Your task to perform on an android device: turn off notifications settings in the gmail app Image 0: 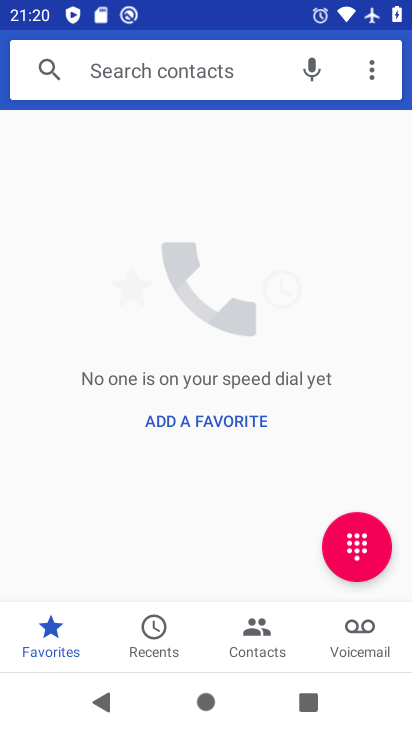
Step 0: press home button
Your task to perform on an android device: turn off notifications settings in the gmail app Image 1: 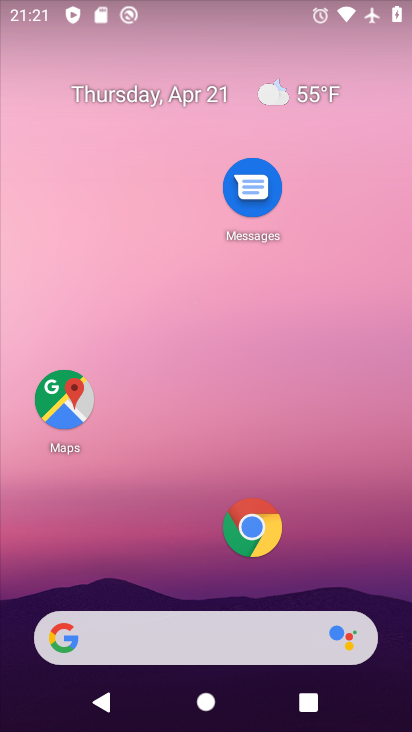
Step 1: drag from (158, 629) to (260, 183)
Your task to perform on an android device: turn off notifications settings in the gmail app Image 2: 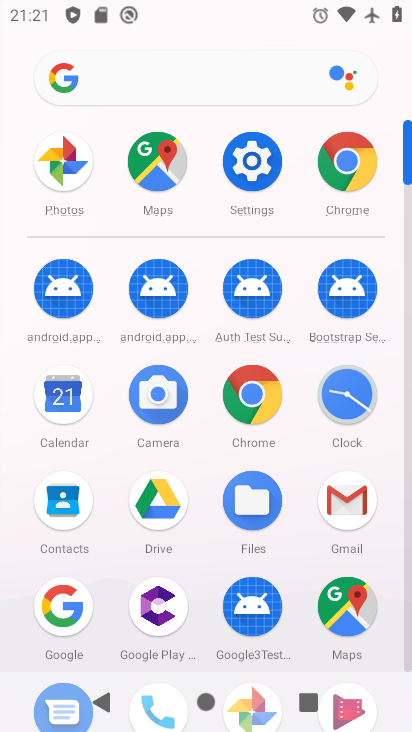
Step 2: click (345, 499)
Your task to perform on an android device: turn off notifications settings in the gmail app Image 3: 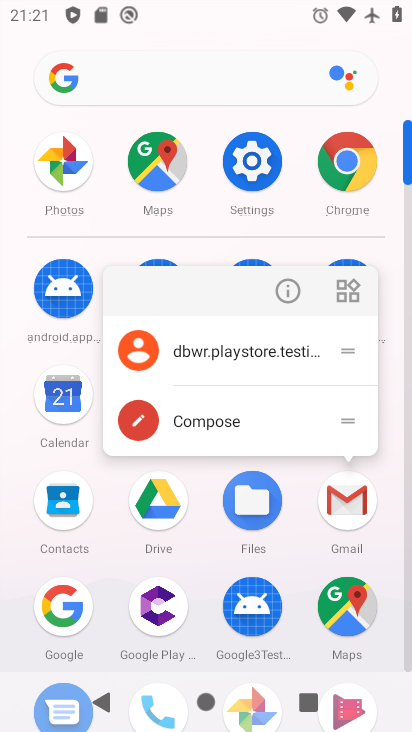
Step 3: click (341, 505)
Your task to perform on an android device: turn off notifications settings in the gmail app Image 4: 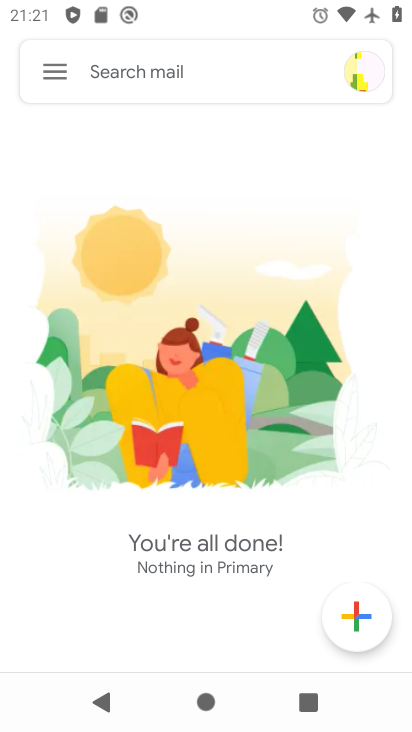
Step 4: click (59, 74)
Your task to perform on an android device: turn off notifications settings in the gmail app Image 5: 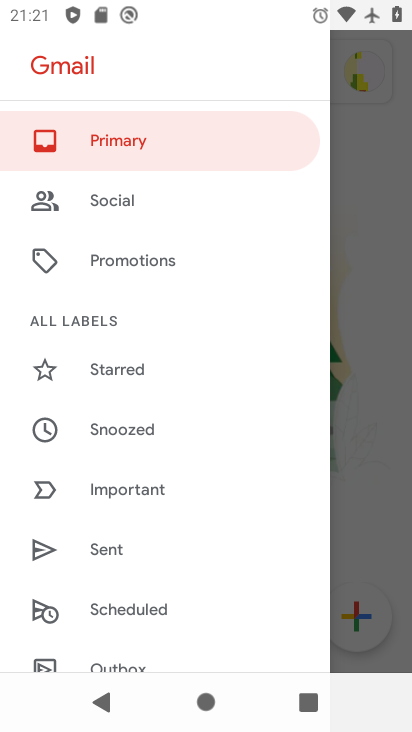
Step 5: drag from (163, 566) to (272, 30)
Your task to perform on an android device: turn off notifications settings in the gmail app Image 6: 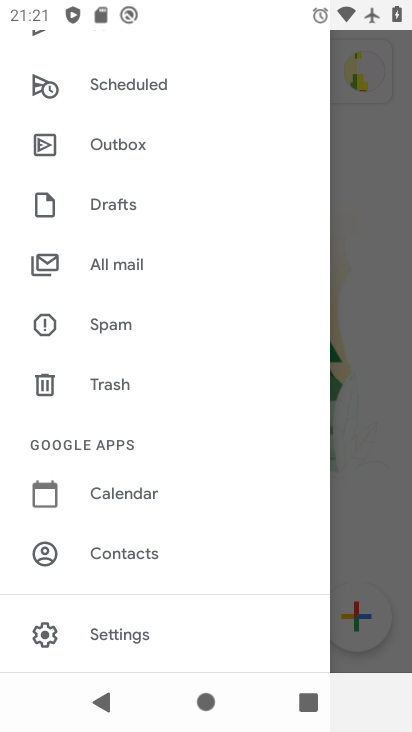
Step 6: click (124, 637)
Your task to perform on an android device: turn off notifications settings in the gmail app Image 7: 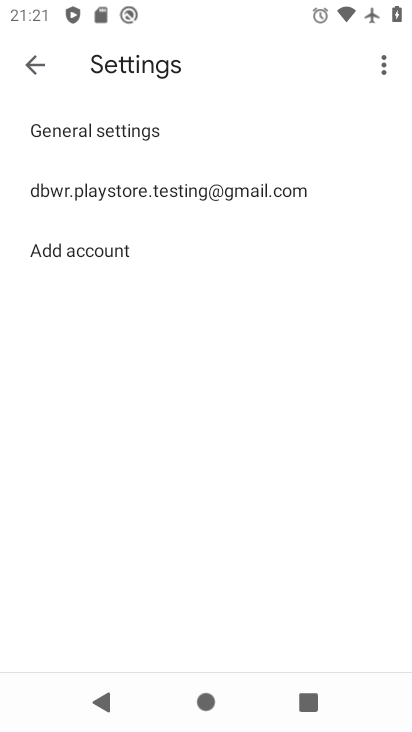
Step 7: click (188, 186)
Your task to perform on an android device: turn off notifications settings in the gmail app Image 8: 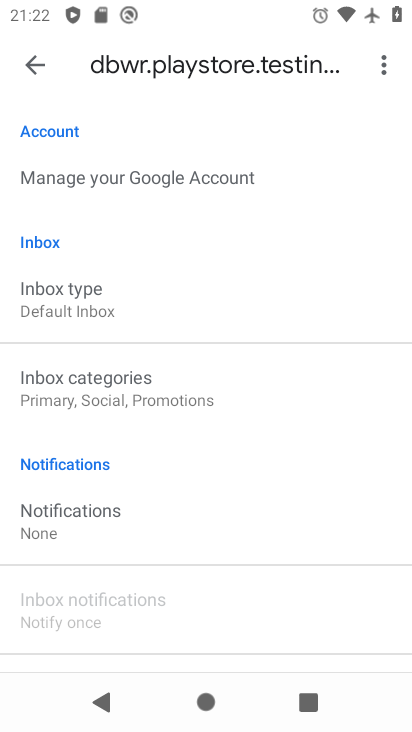
Step 8: click (89, 519)
Your task to perform on an android device: turn off notifications settings in the gmail app Image 9: 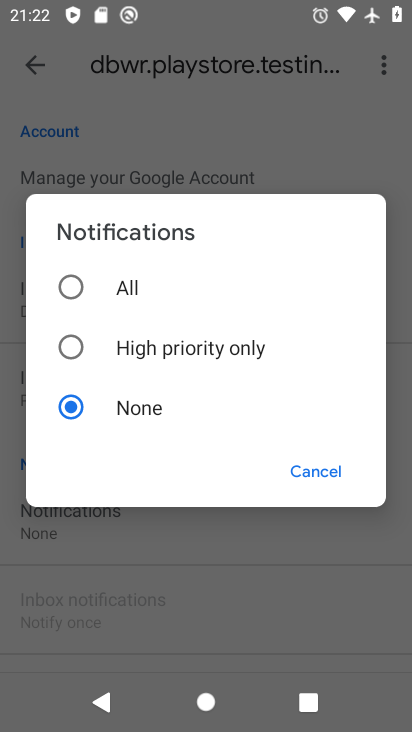
Step 9: task complete